Your task to perform on an android device: Go to calendar. Show me events next week Image 0: 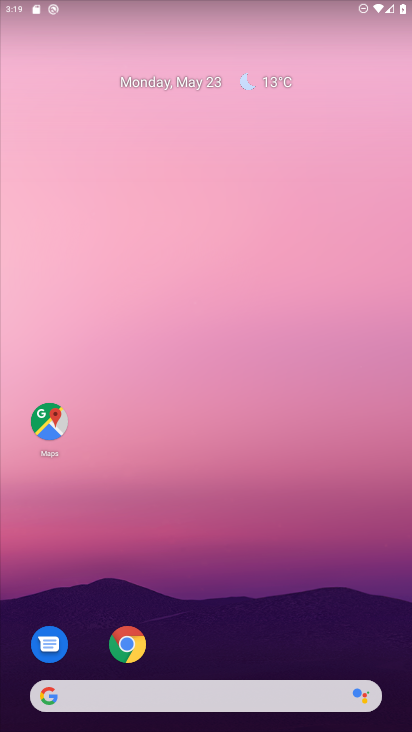
Step 0: drag from (291, 608) to (206, 178)
Your task to perform on an android device: Go to calendar. Show me events next week Image 1: 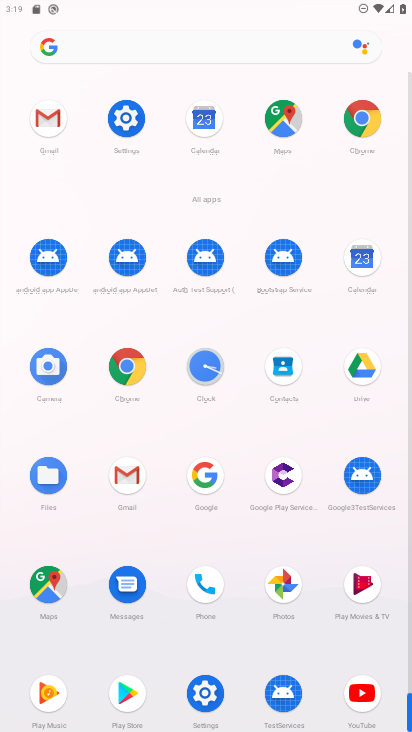
Step 1: click (368, 258)
Your task to perform on an android device: Go to calendar. Show me events next week Image 2: 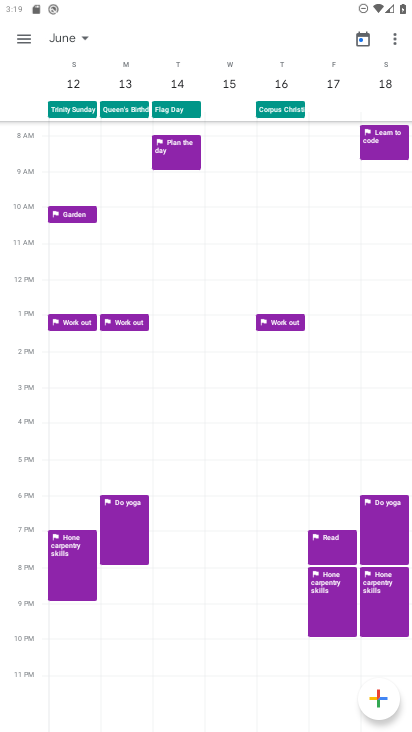
Step 2: click (67, 43)
Your task to perform on an android device: Go to calendar. Show me events next week Image 3: 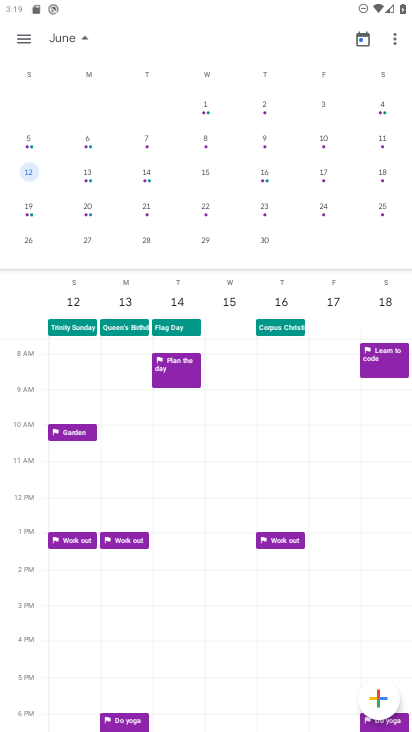
Step 3: drag from (32, 186) to (404, 163)
Your task to perform on an android device: Go to calendar. Show me events next week Image 4: 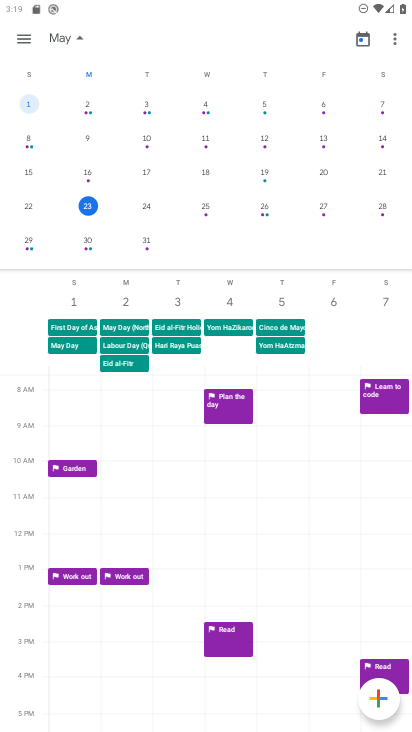
Step 4: click (33, 244)
Your task to perform on an android device: Go to calendar. Show me events next week Image 5: 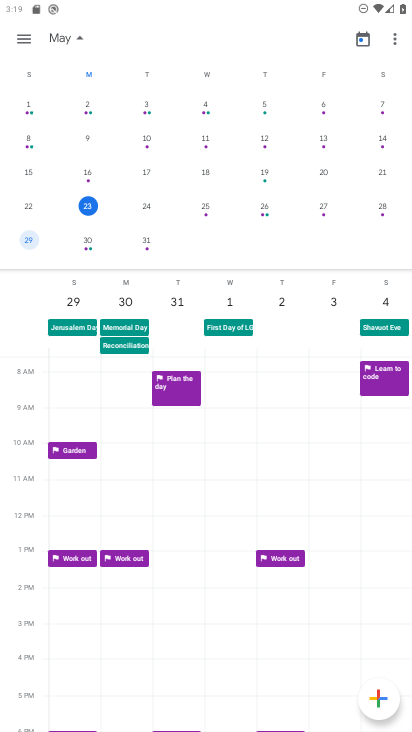
Step 5: click (23, 30)
Your task to perform on an android device: Go to calendar. Show me events next week Image 6: 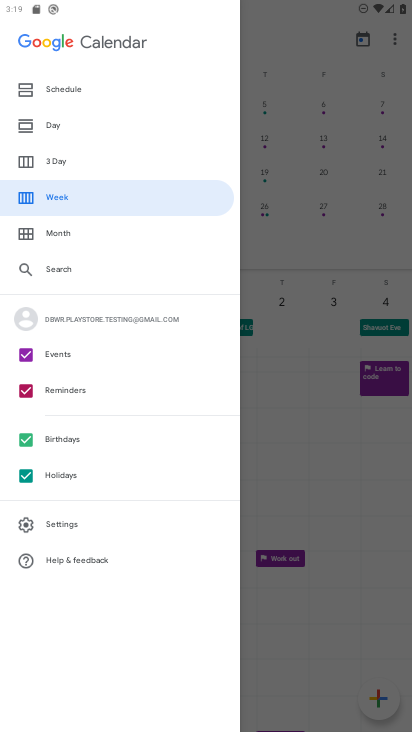
Step 6: click (65, 206)
Your task to perform on an android device: Go to calendar. Show me events next week Image 7: 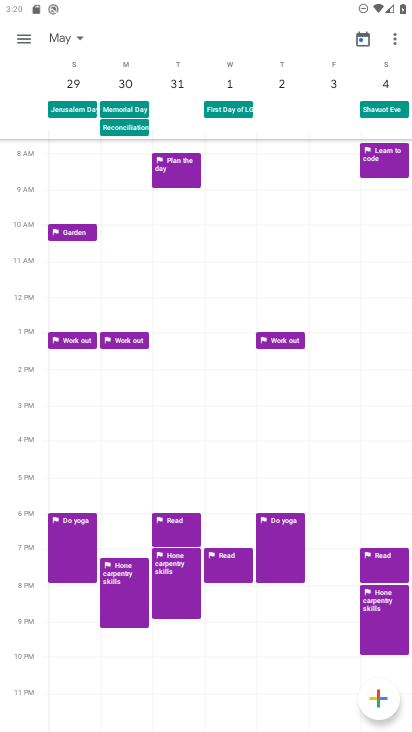
Step 7: task complete